Your task to perform on an android device: turn smart compose on in the gmail app Image 0: 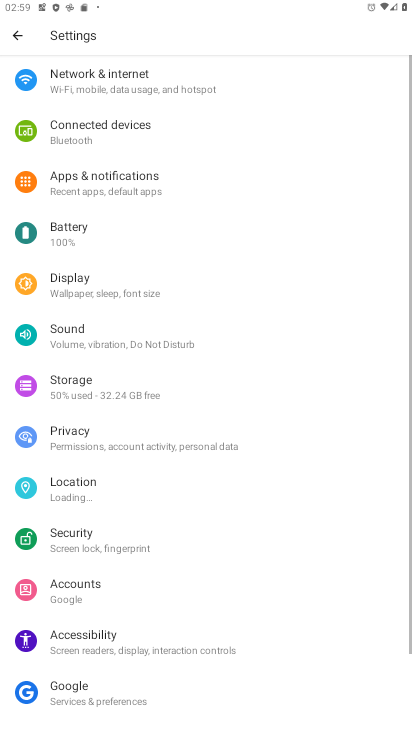
Step 0: press home button
Your task to perform on an android device: turn smart compose on in the gmail app Image 1: 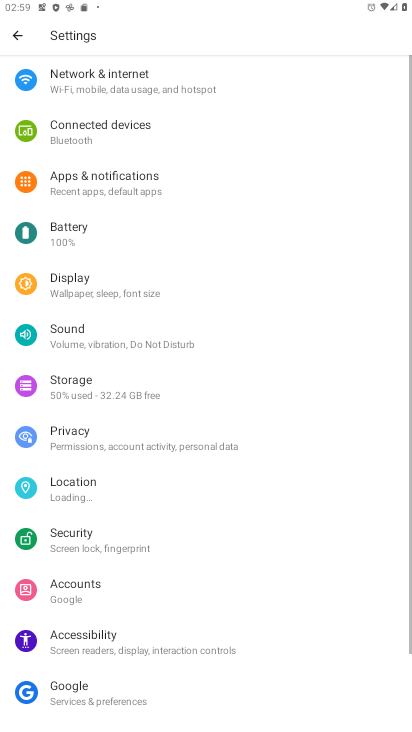
Step 1: press home button
Your task to perform on an android device: turn smart compose on in the gmail app Image 2: 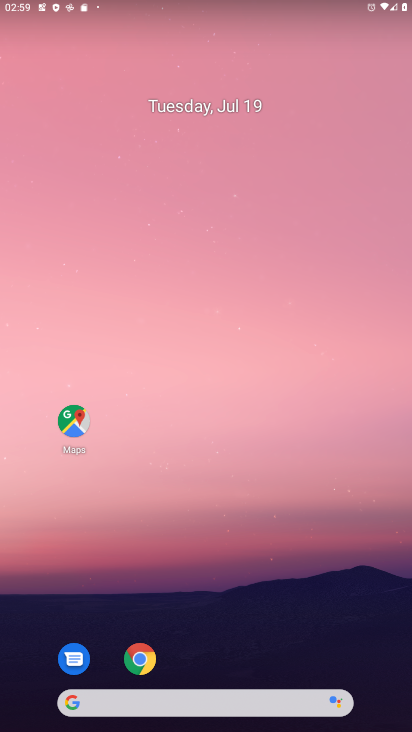
Step 2: drag from (178, 629) to (198, 86)
Your task to perform on an android device: turn smart compose on in the gmail app Image 3: 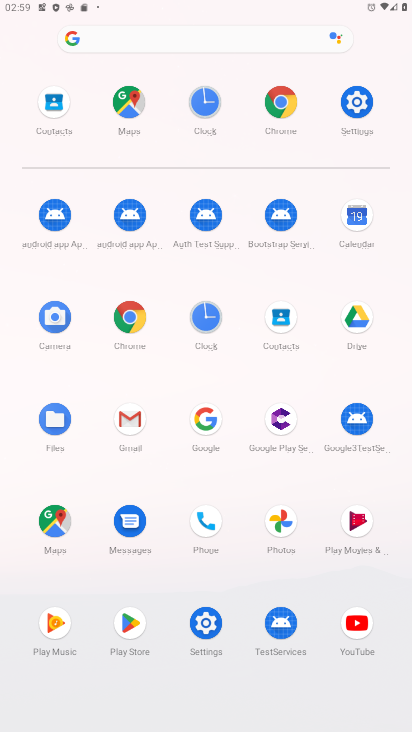
Step 3: click (137, 422)
Your task to perform on an android device: turn smart compose on in the gmail app Image 4: 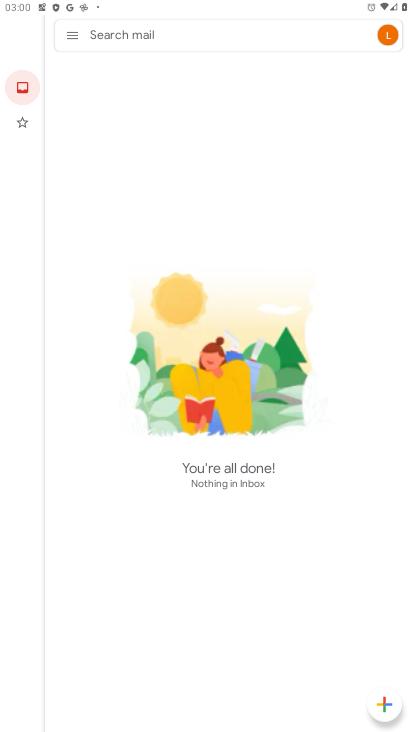
Step 4: click (76, 28)
Your task to perform on an android device: turn smart compose on in the gmail app Image 5: 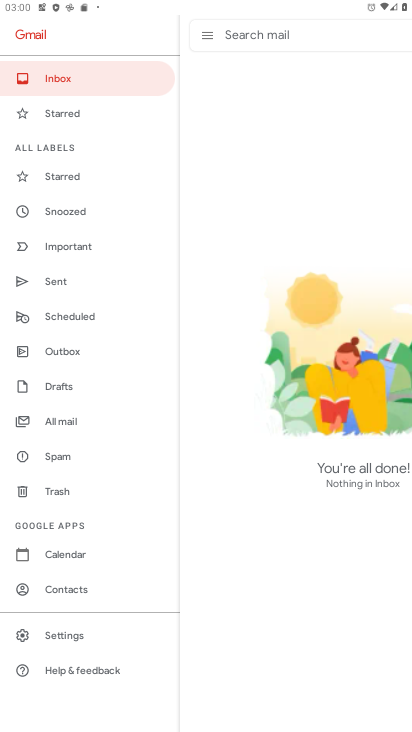
Step 5: click (49, 630)
Your task to perform on an android device: turn smart compose on in the gmail app Image 6: 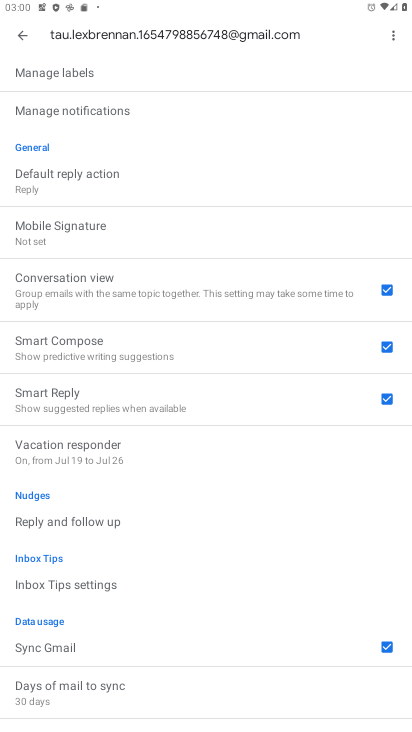
Step 6: task complete